Your task to perform on an android device: open sync settings in chrome Image 0: 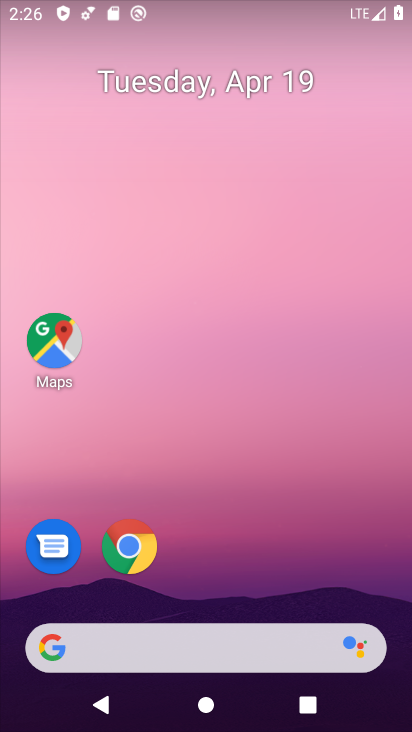
Step 0: click (134, 548)
Your task to perform on an android device: open sync settings in chrome Image 1: 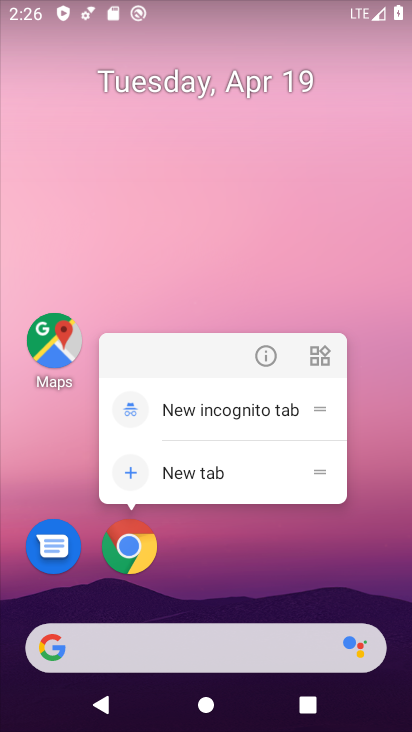
Step 1: click (136, 559)
Your task to perform on an android device: open sync settings in chrome Image 2: 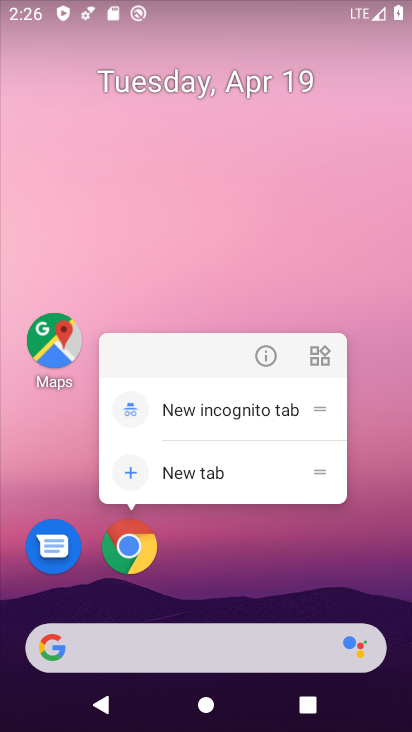
Step 2: click (136, 559)
Your task to perform on an android device: open sync settings in chrome Image 3: 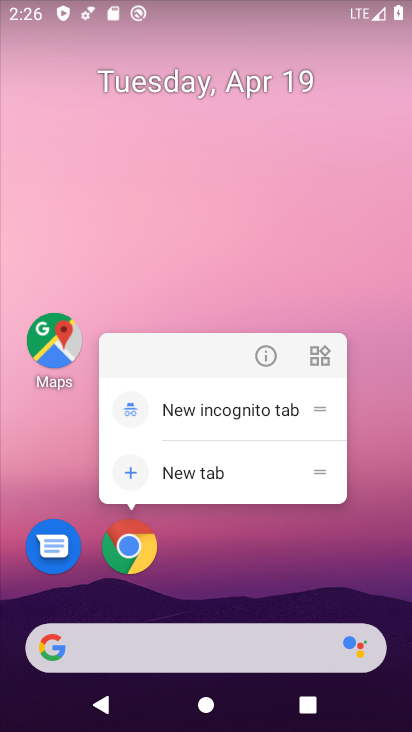
Step 3: click (106, 561)
Your task to perform on an android device: open sync settings in chrome Image 4: 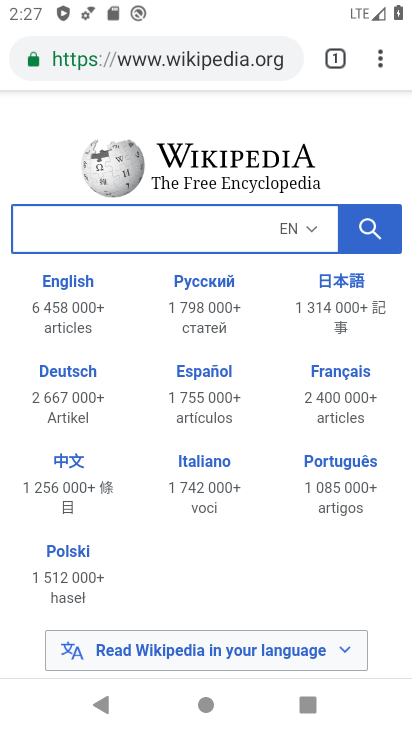
Step 4: click (380, 58)
Your task to perform on an android device: open sync settings in chrome Image 5: 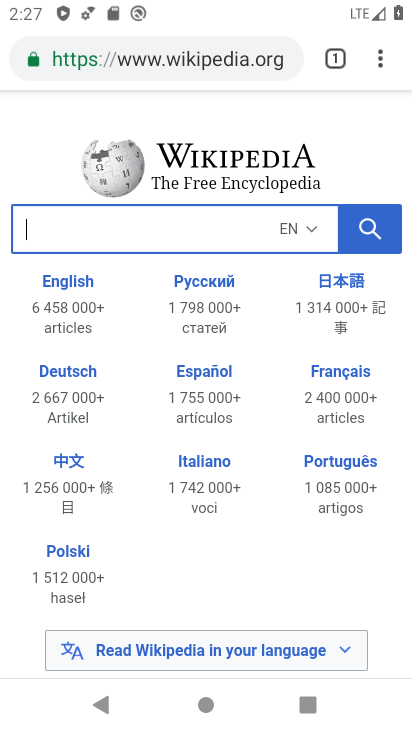
Step 5: drag from (380, 58) to (188, 577)
Your task to perform on an android device: open sync settings in chrome Image 6: 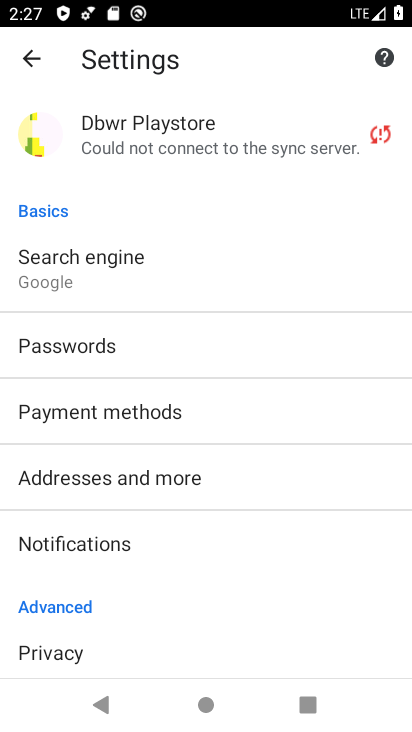
Step 6: click (140, 147)
Your task to perform on an android device: open sync settings in chrome Image 7: 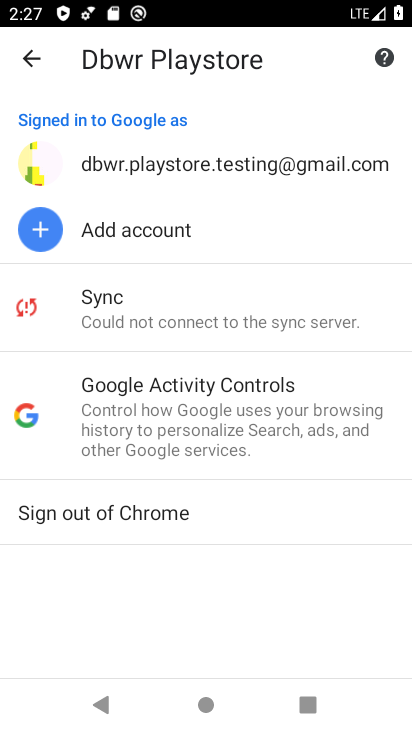
Step 7: click (137, 295)
Your task to perform on an android device: open sync settings in chrome Image 8: 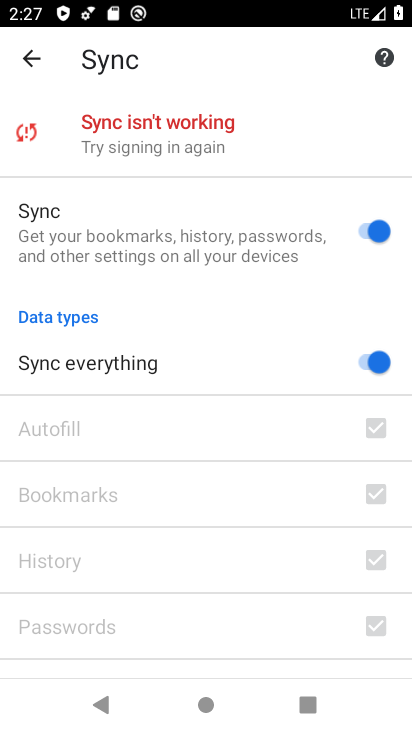
Step 8: task complete